Your task to perform on an android device: turn pop-ups off in chrome Image 0: 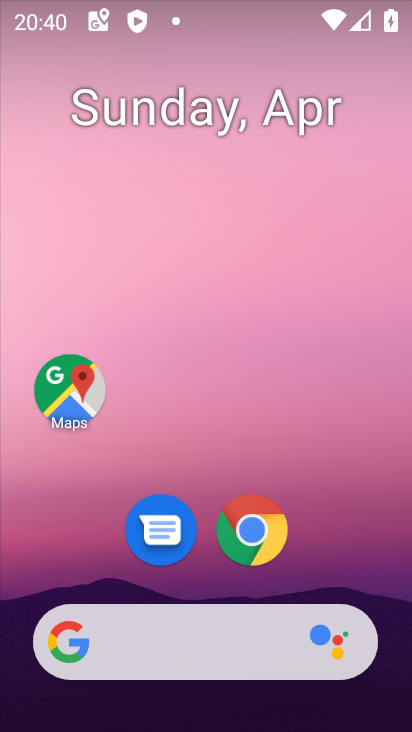
Step 0: click (246, 551)
Your task to perform on an android device: turn pop-ups off in chrome Image 1: 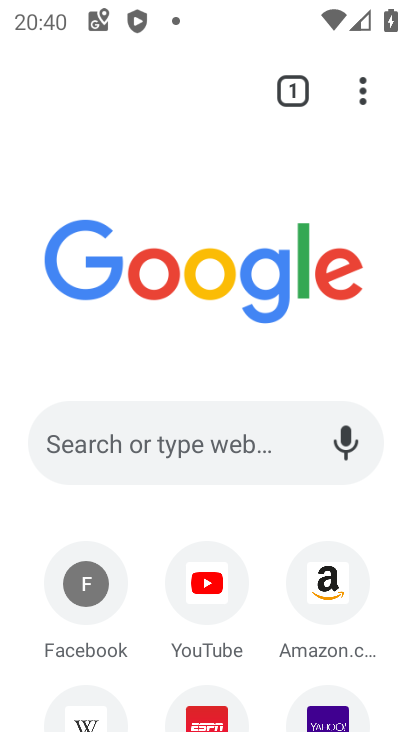
Step 1: click (370, 76)
Your task to perform on an android device: turn pop-ups off in chrome Image 2: 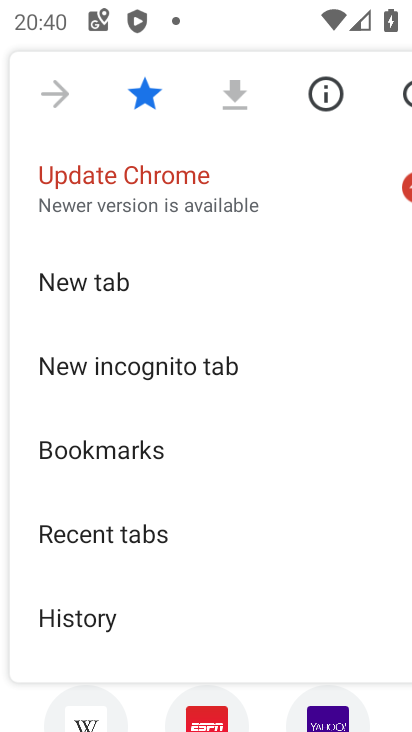
Step 2: drag from (192, 449) to (262, 175)
Your task to perform on an android device: turn pop-ups off in chrome Image 3: 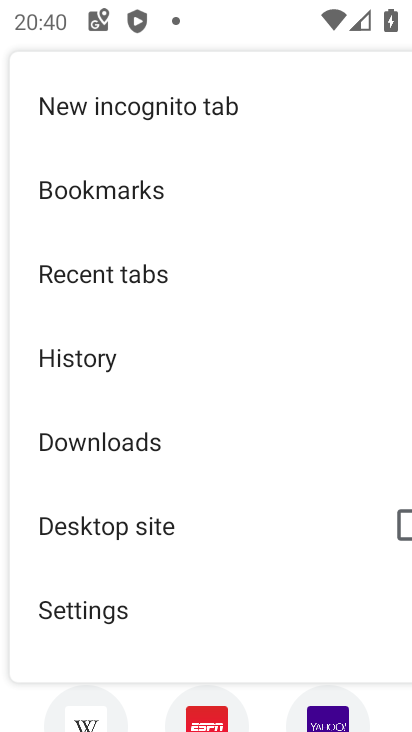
Step 3: click (107, 607)
Your task to perform on an android device: turn pop-ups off in chrome Image 4: 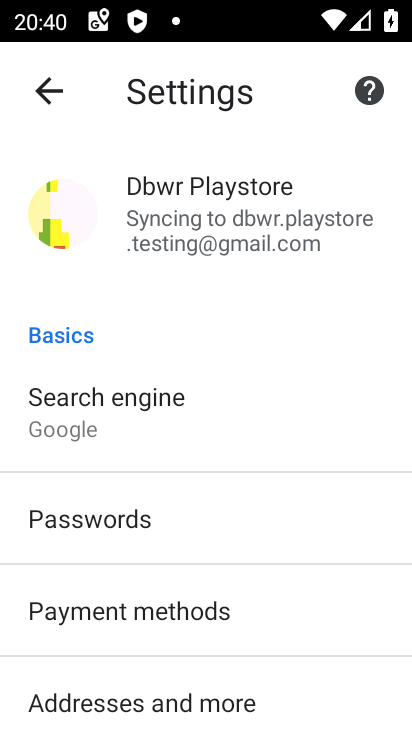
Step 4: drag from (102, 571) to (164, 243)
Your task to perform on an android device: turn pop-ups off in chrome Image 5: 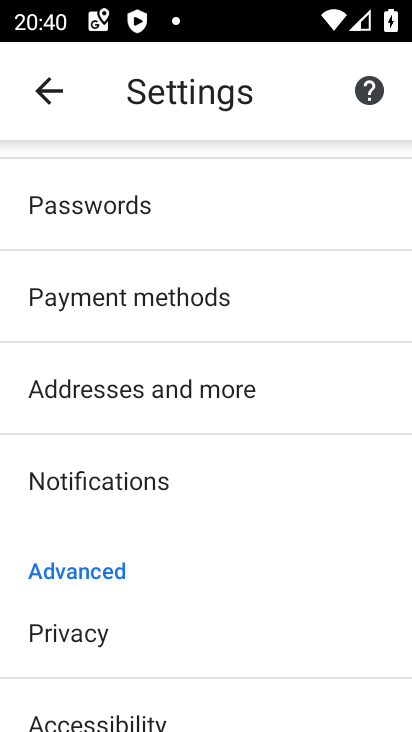
Step 5: drag from (100, 576) to (175, 223)
Your task to perform on an android device: turn pop-ups off in chrome Image 6: 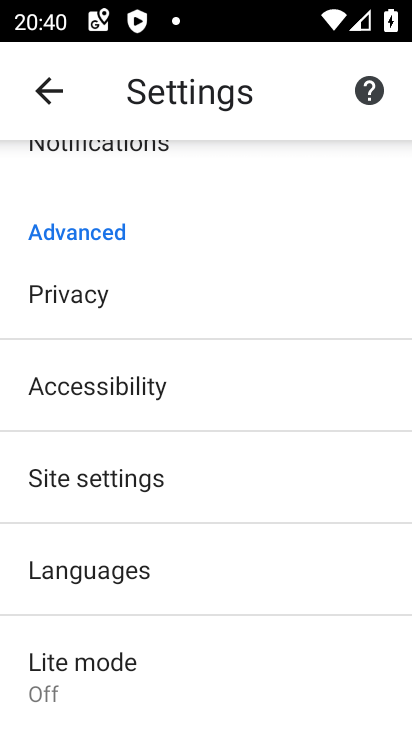
Step 6: click (138, 481)
Your task to perform on an android device: turn pop-ups off in chrome Image 7: 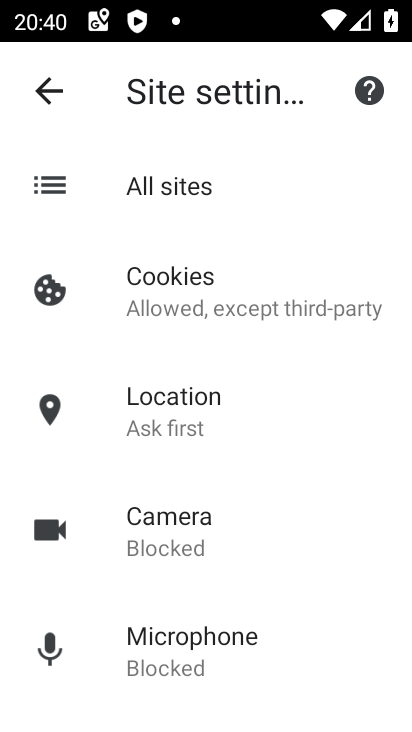
Step 7: drag from (210, 564) to (296, 113)
Your task to perform on an android device: turn pop-ups off in chrome Image 8: 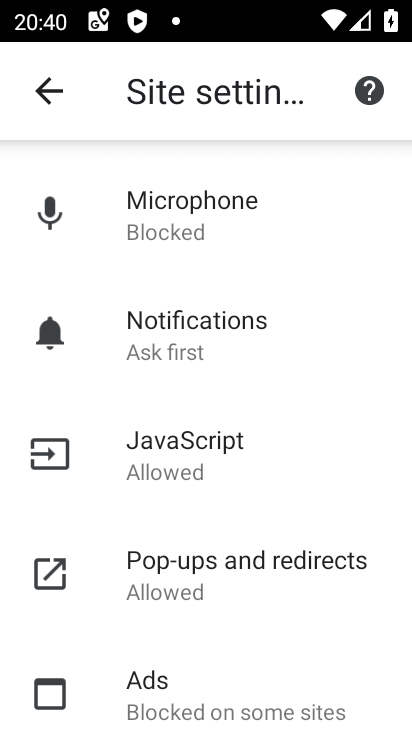
Step 8: click (220, 574)
Your task to perform on an android device: turn pop-ups off in chrome Image 9: 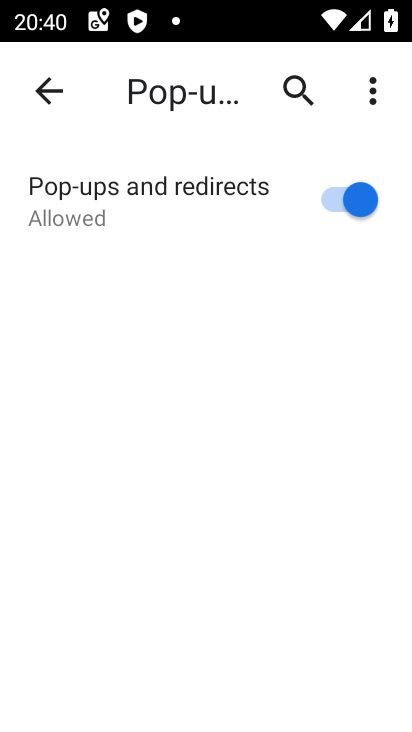
Step 9: click (360, 206)
Your task to perform on an android device: turn pop-ups off in chrome Image 10: 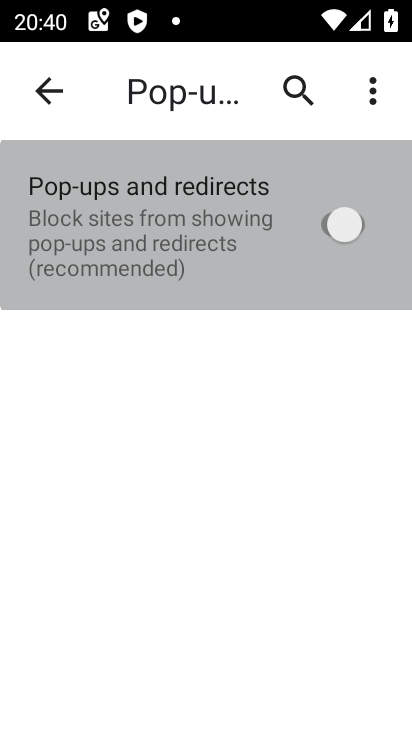
Step 10: click (360, 206)
Your task to perform on an android device: turn pop-ups off in chrome Image 11: 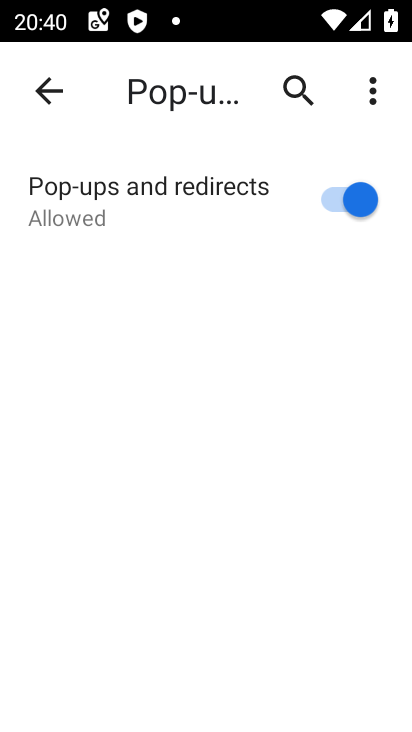
Step 11: task complete